Your task to perform on an android device: turn on priority inbox in the gmail app Image 0: 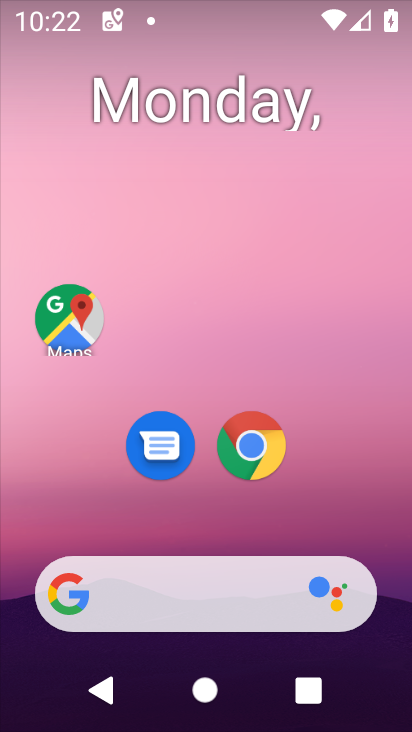
Step 0: drag from (253, 586) to (261, 0)
Your task to perform on an android device: turn on priority inbox in the gmail app Image 1: 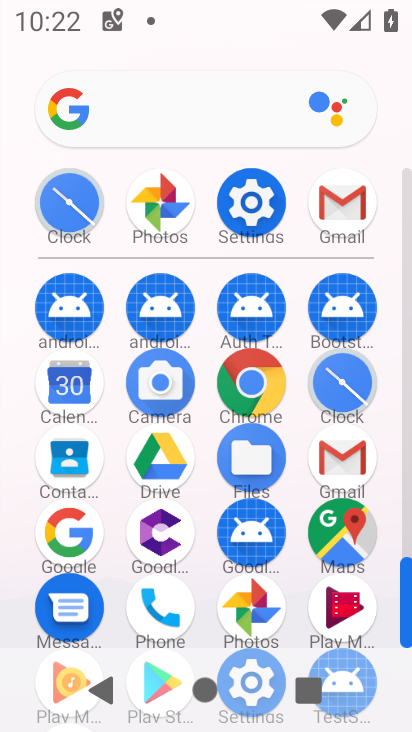
Step 1: click (343, 221)
Your task to perform on an android device: turn on priority inbox in the gmail app Image 2: 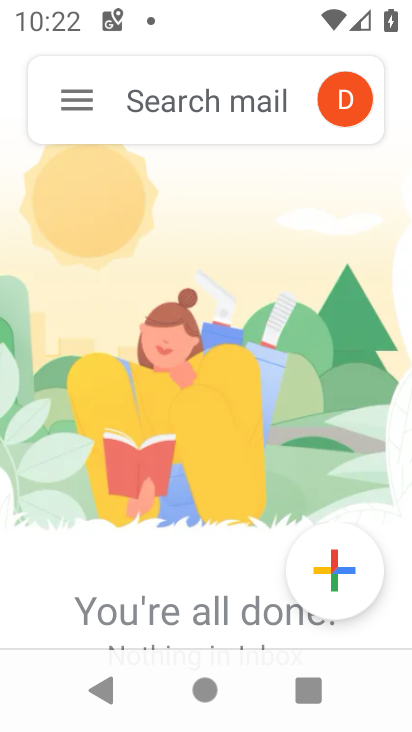
Step 2: click (83, 102)
Your task to perform on an android device: turn on priority inbox in the gmail app Image 3: 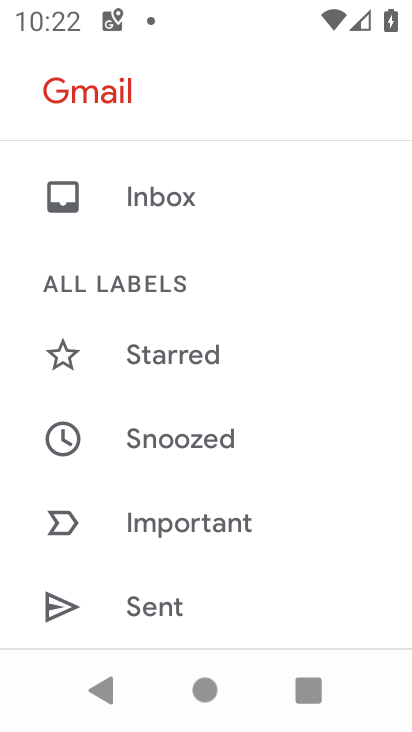
Step 3: drag from (187, 551) to (259, 63)
Your task to perform on an android device: turn on priority inbox in the gmail app Image 4: 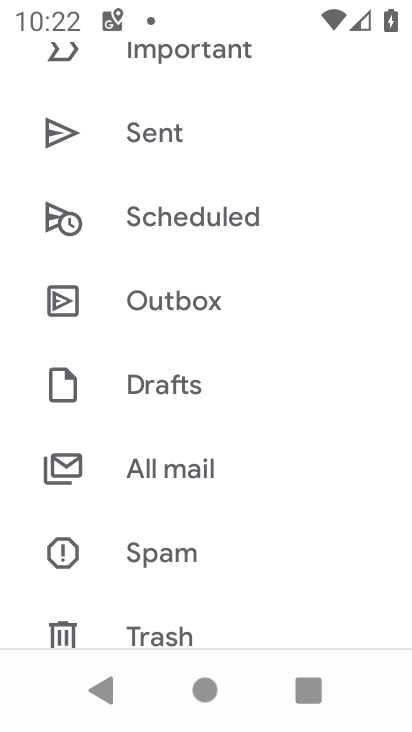
Step 4: drag from (245, 606) to (255, 168)
Your task to perform on an android device: turn on priority inbox in the gmail app Image 5: 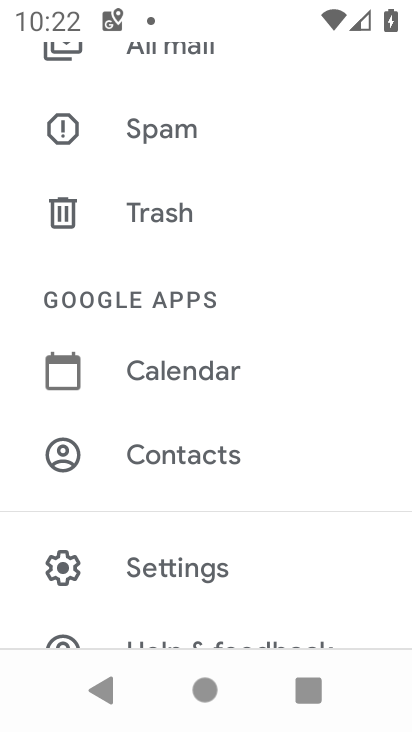
Step 5: click (164, 550)
Your task to perform on an android device: turn on priority inbox in the gmail app Image 6: 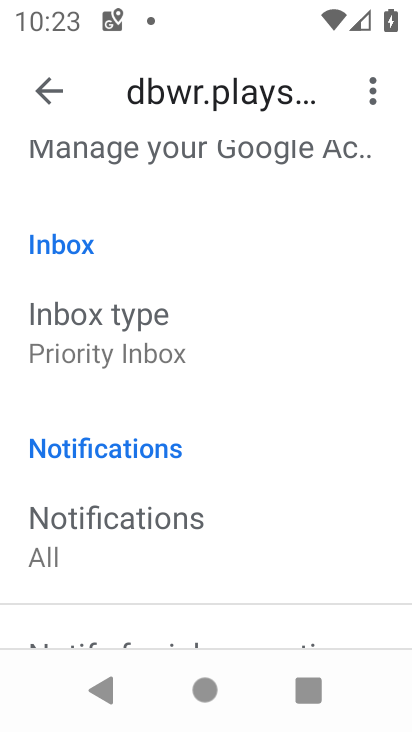
Step 6: task complete